Your task to perform on an android device: change the upload size in google photos Image 0: 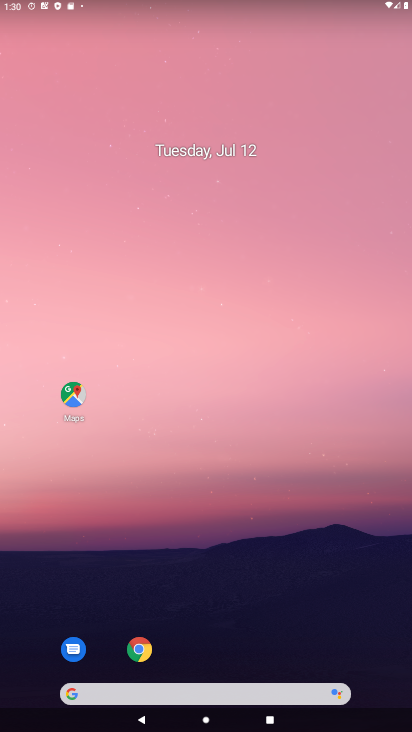
Step 0: drag from (354, 666) to (225, 101)
Your task to perform on an android device: change the upload size in google photos Image 1: 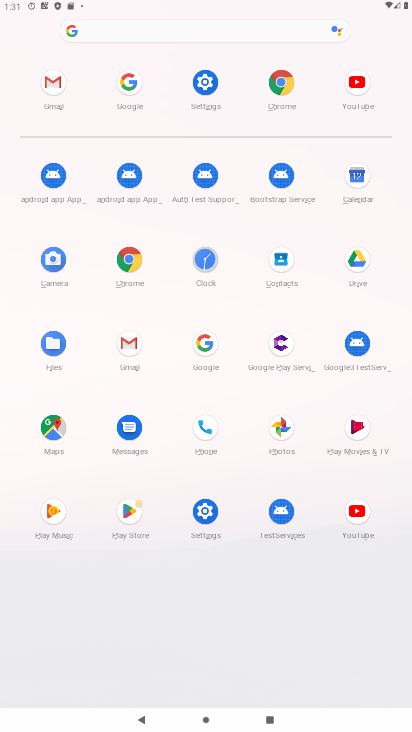
Step 1: click (283, 440)
Your task to perform on an android device: change the upload size in google photos Image 2: 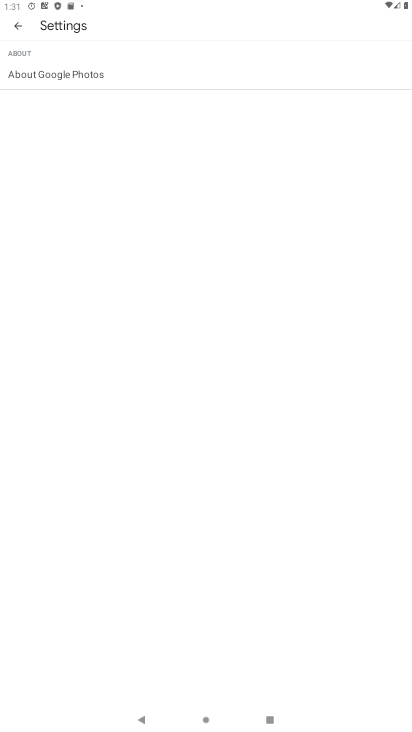
Step 2: task complete